Your task to perform on an android device: Open maps Image 0: 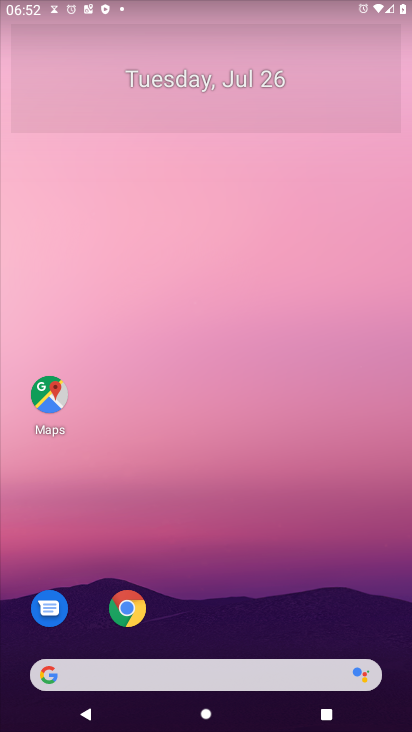
Step 0: drag from (257, 635) to (255, 72)
Your task to perform on an android device: Open maps Image 1: 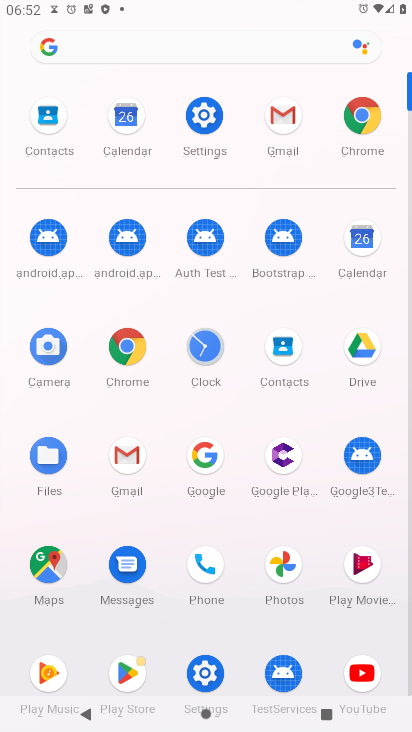
Step 1: click (42, 564)
Your task to perform on an android device: Open maps Image 2: 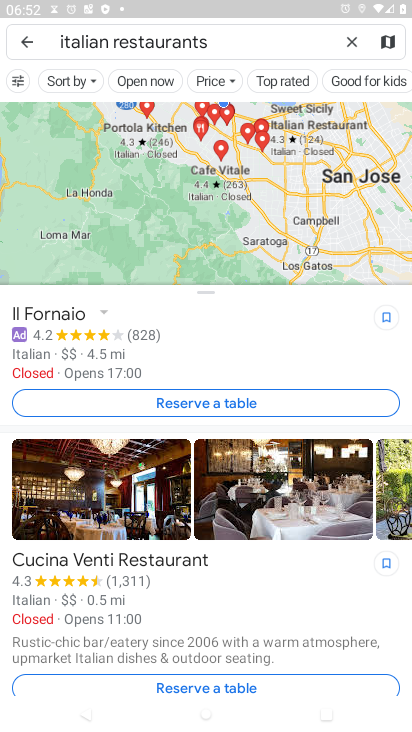
Step 2: click (17, 45)
Your task to perform on an android device: Open maps Image 3: 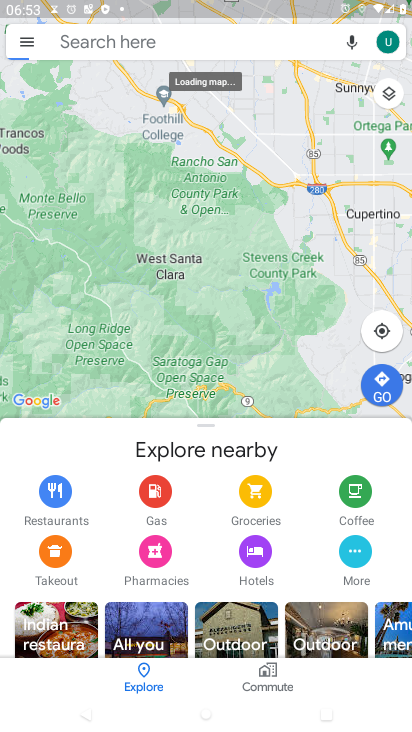
Step 3: task complete